Your task to perform on an android device: Open notification settings Image 0: 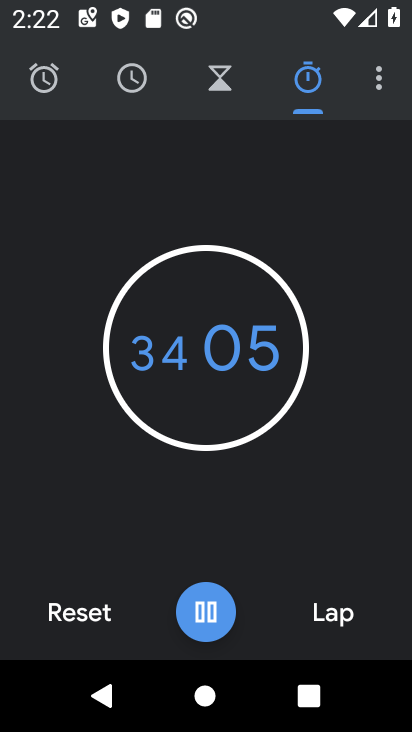
Step 0: press home button
Your task to perform on an android device: Open notification settings Image 1: 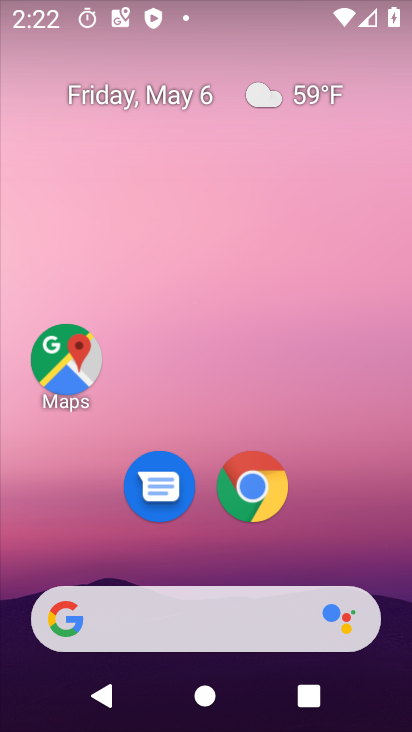
Step 1: drag from (321, 514) to (276, 11)
Your task to perform on an android device: Open notification settings Image 2: 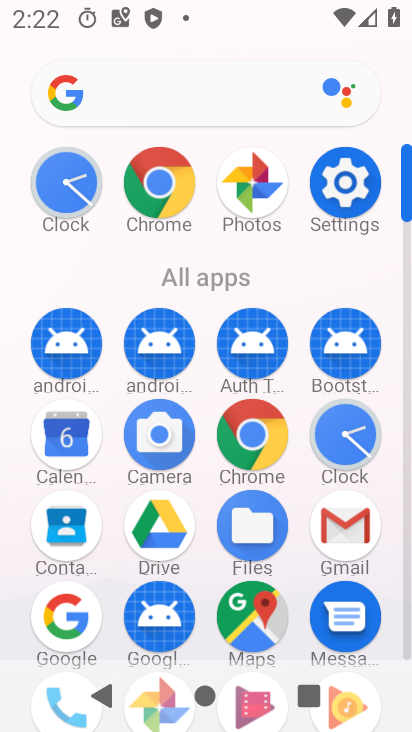
Step 2: click (352, 180)
Your task to perform on an android device: Open notification settings Image 3: 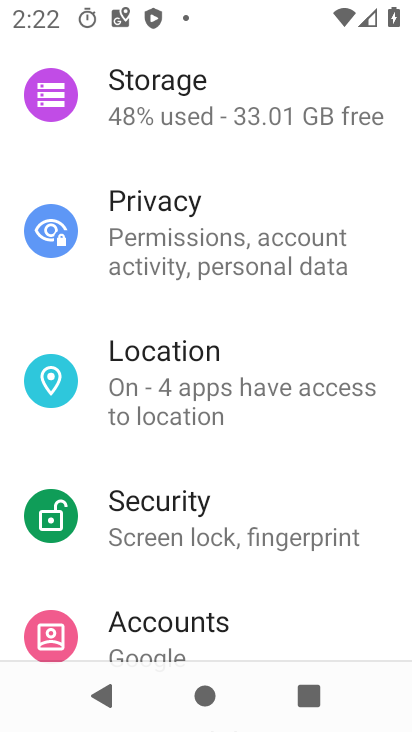
Step 3: drag from (249, 174) to (308, 538)
Your task to perform on an android device: Open notification settings Image 4: 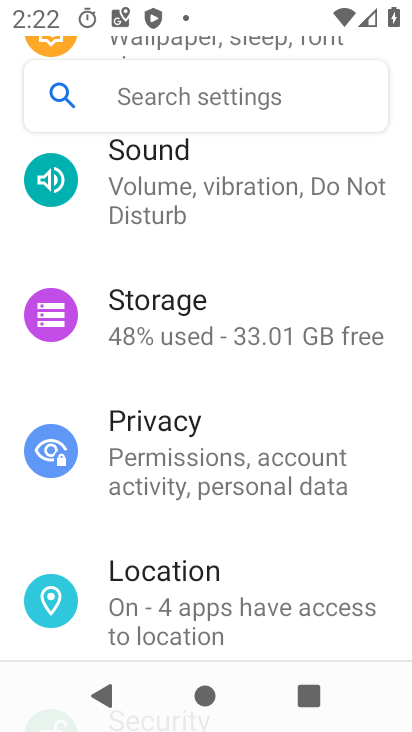
Step 4: drag from (203, 240) to (219, 569)
Your task to perform on an android device: Open notification settings Image 5: 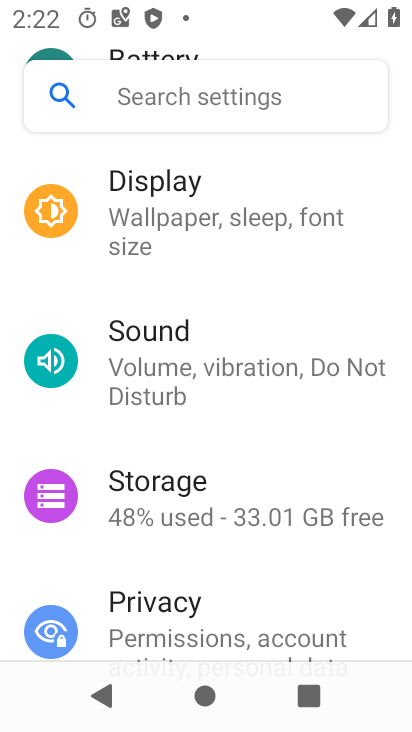
Step 5: drag from (216, 285) to (247, 676)
Your task to perform on an android device: Open notification settings Image 6: 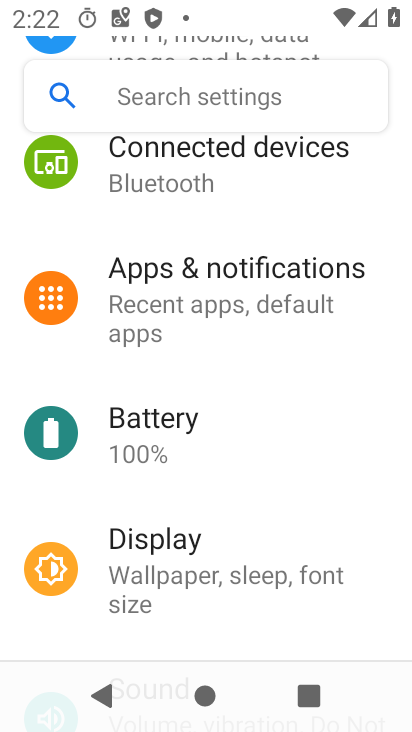
Step 6: click (214, 271)
Your task to perform on an android device: Open notification settings Image 7: 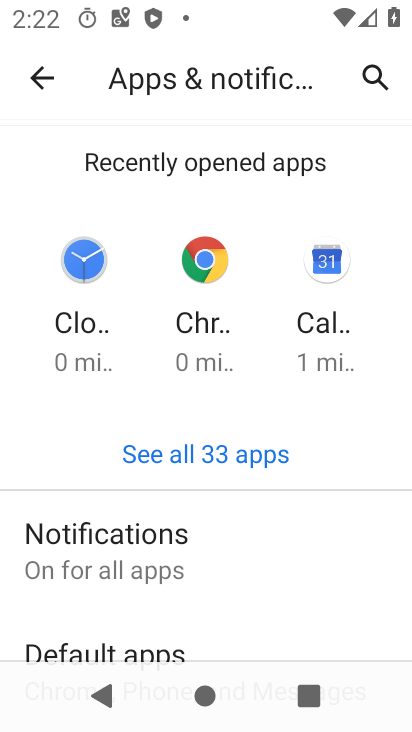
Step 7: task complete